Your task to perform on an android device: Go to calendar. Show me events next week Image 0: 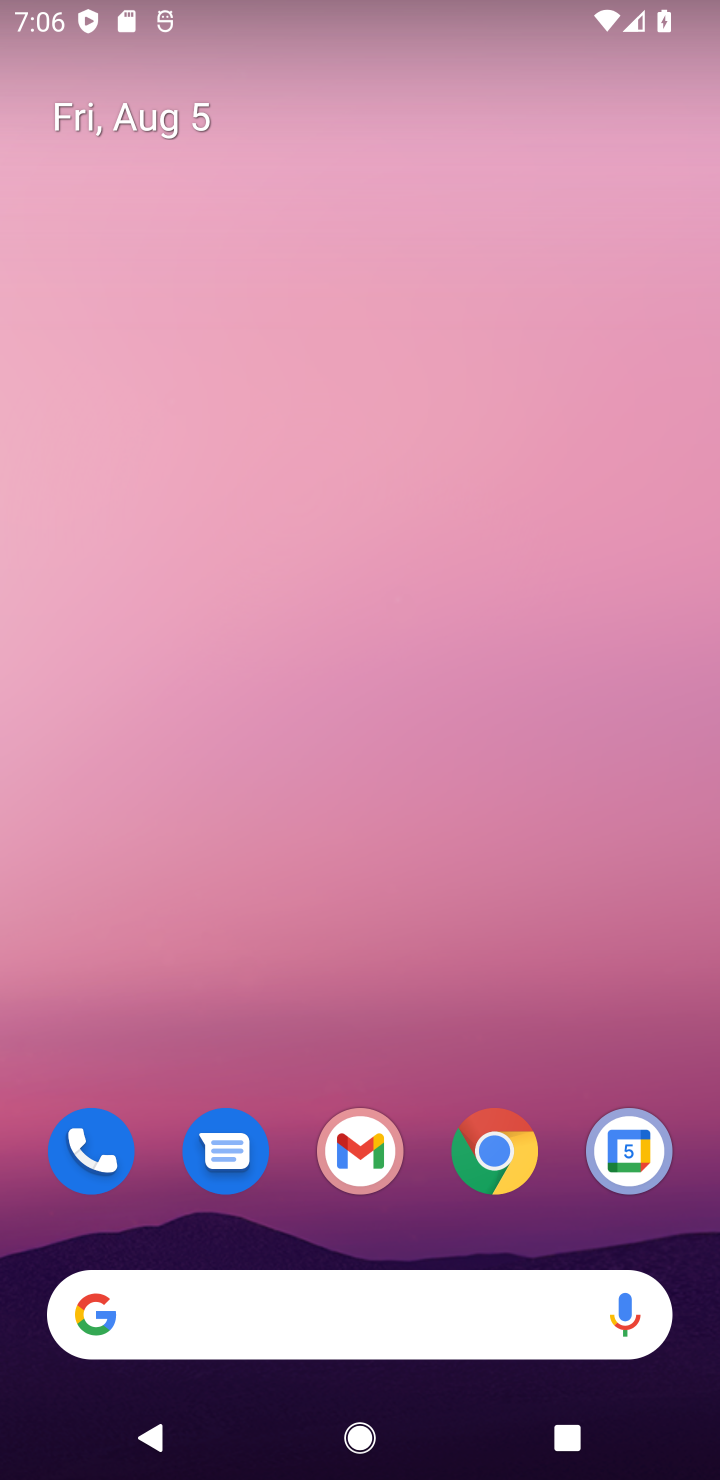
Step 0: drag from (387, 1227) to (712, 29)
Your task to perform on an android device: Go to calendar. Show me events next week Image 1: 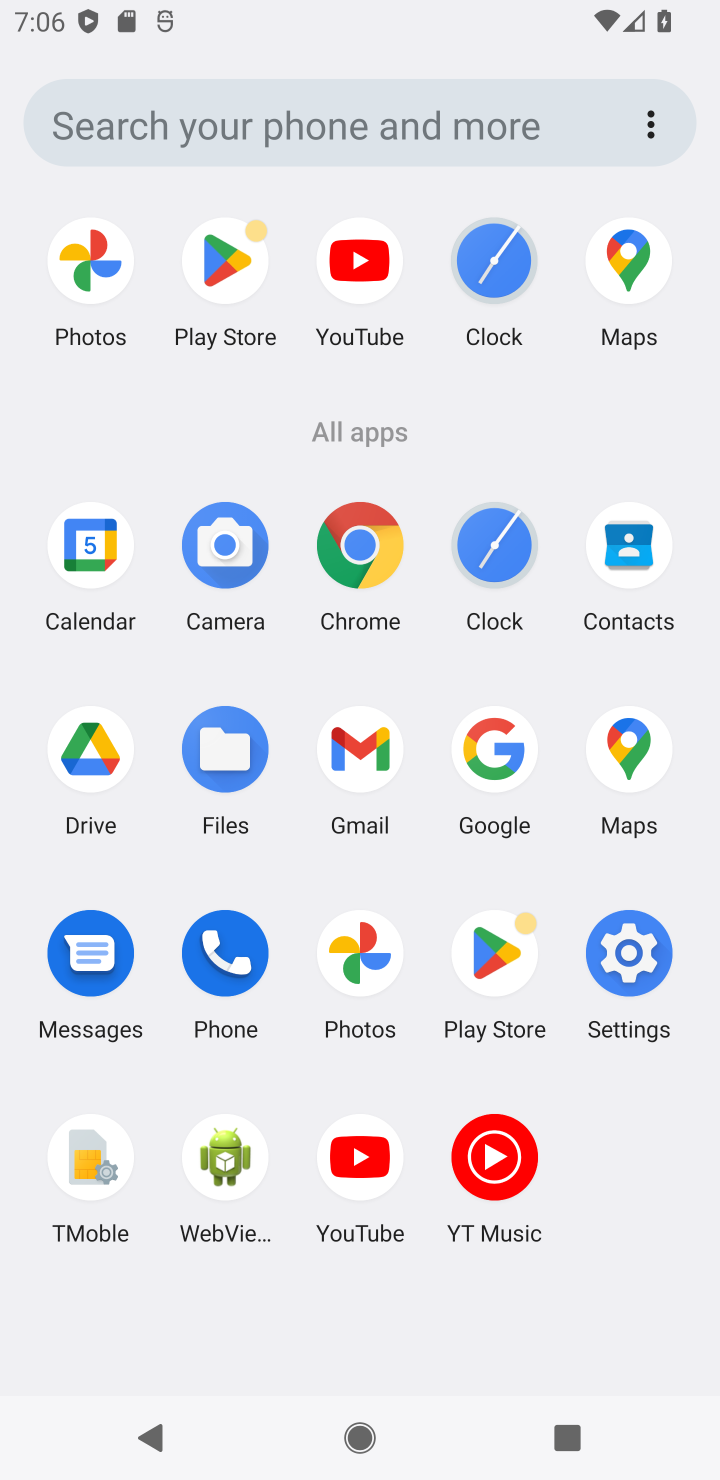
Step 1: click (100, 555)
Your task to perform on an android device: Go to calendar. Show me events next week Image 2: 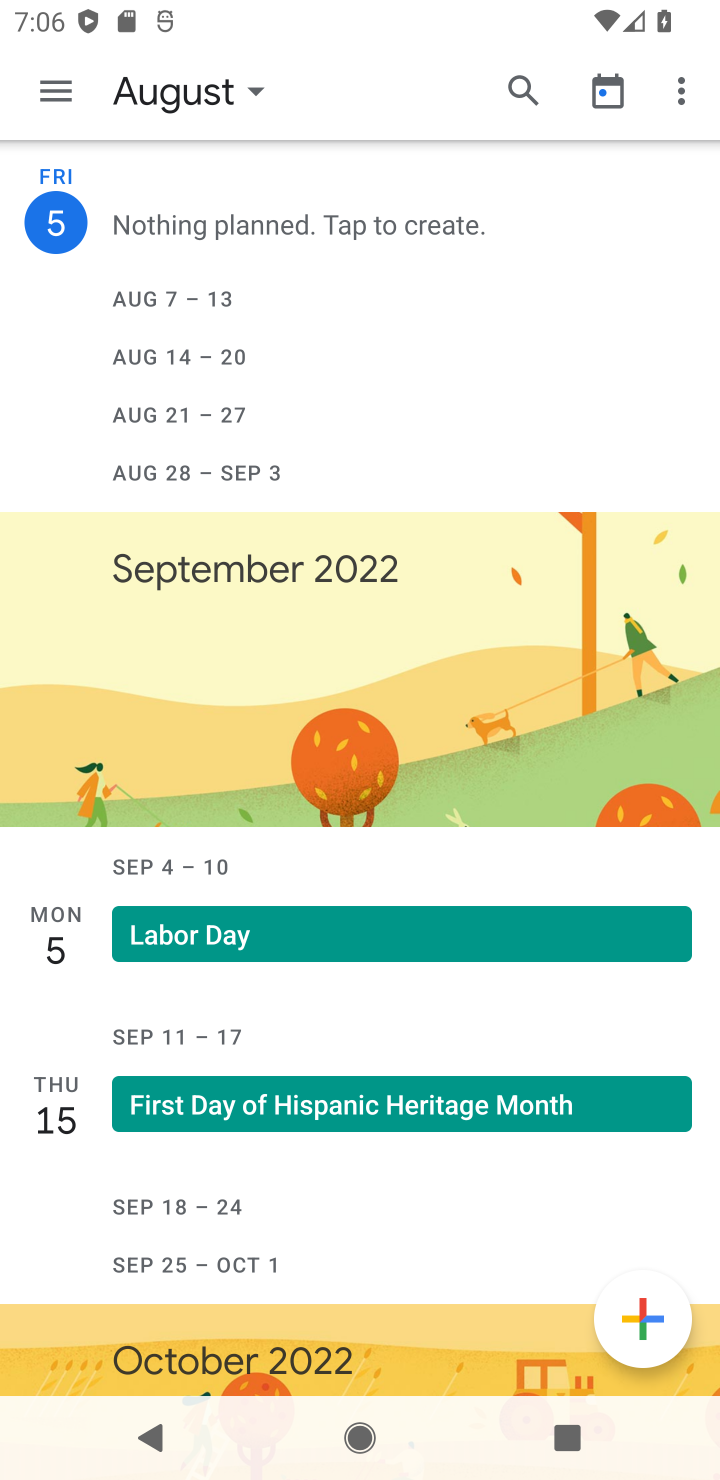
Step 2: click (56, 103)
Your task to perform on an android device: Go to calendar. Show me events next week Image 3: 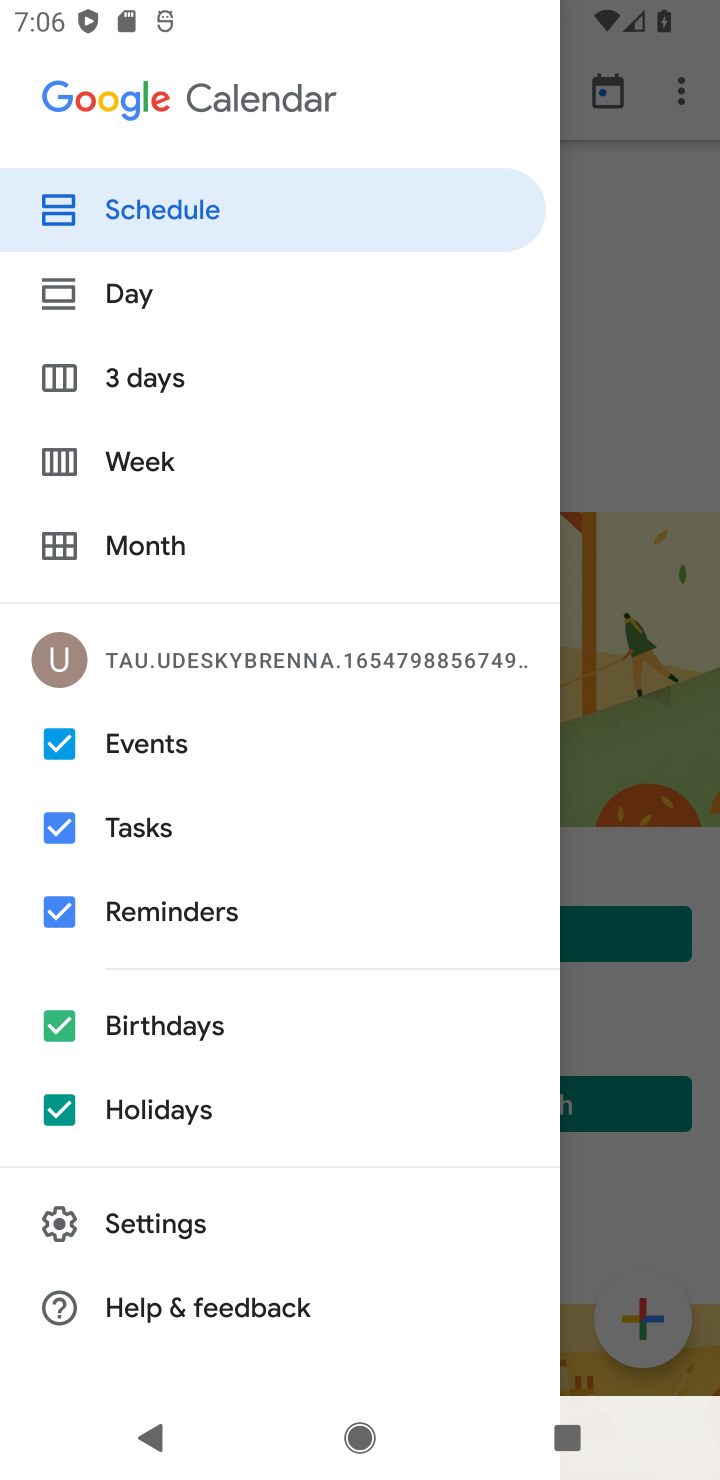
Step 3: click (166, 454)
Your task to perform on an android device: Go to calendar. Show me events next week Image 4: 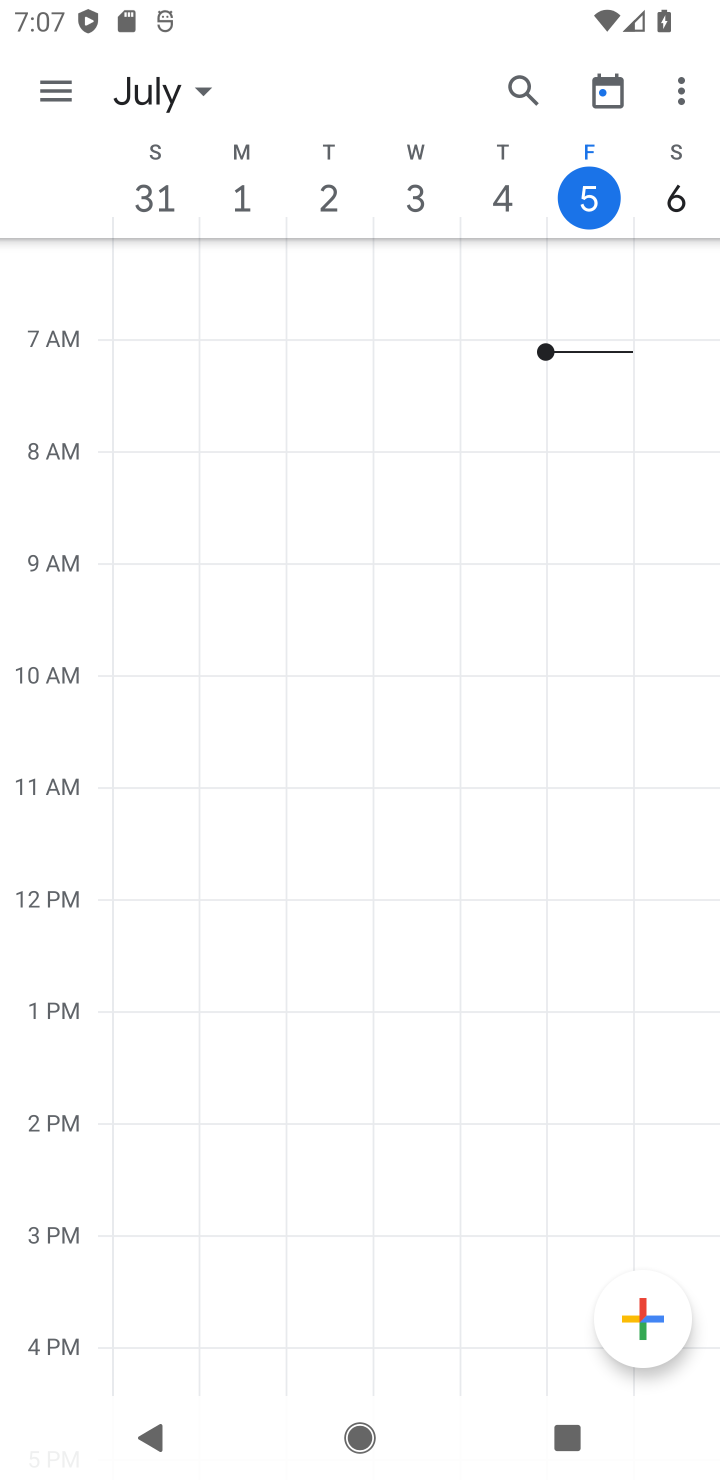
Step 4: task complete